Your task to perform on an android device: Open maps Image 0: 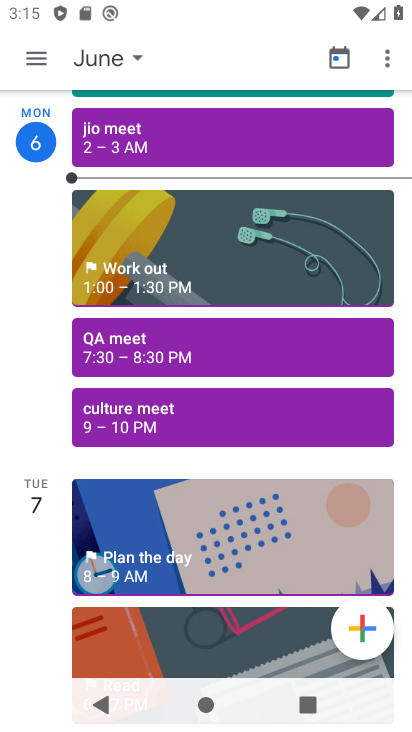
Step 0: press home button
Your task to perform on an android device: Open maps Image 1: 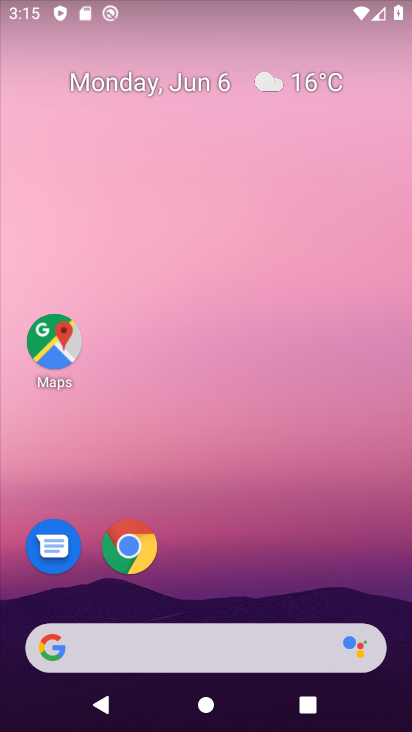
Step 1: click (47, 341)
Your task to perform on an android device: Open maps Image 2: 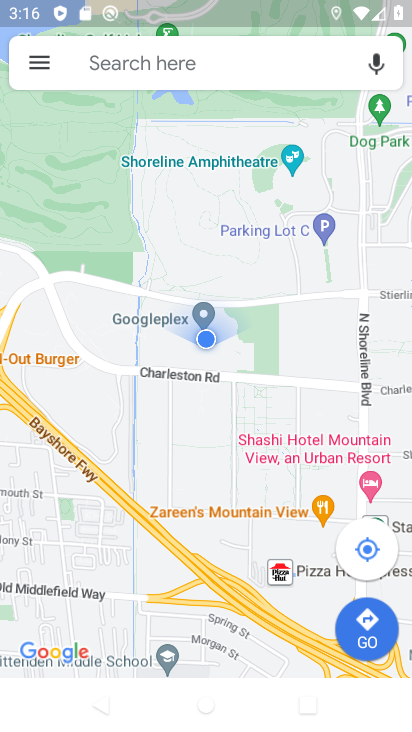
Step 2: task complete